Your task to perform on an android device: Turn off the flashlight Image 0: 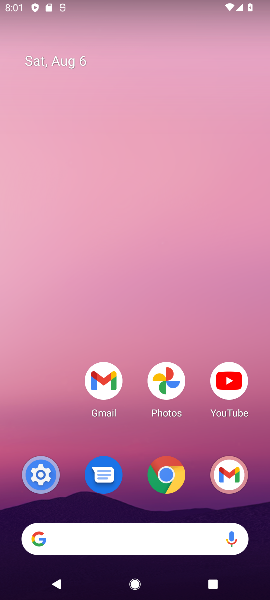
Step 0: click (35, 490)
Your task to perform on an android device: Turn off the flashlight Image 1: 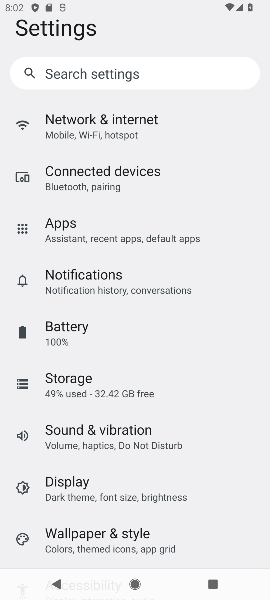
Step 1: task complete